Your task to perform on an android device: Open the stopwatch Image 0: 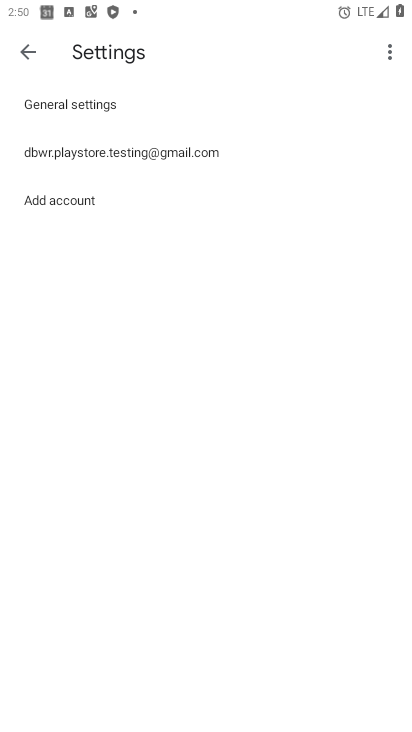
Step 0: press home button
Your task to perform on an android device: Open the stopwatch Image 1: 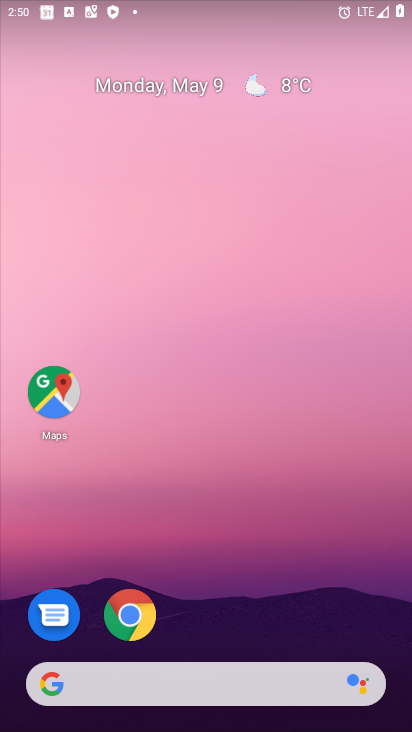
Step 1: drag from (383, 619) to (343, 97)
Your task to perform on an android device: Open the stopwatch Image 2: 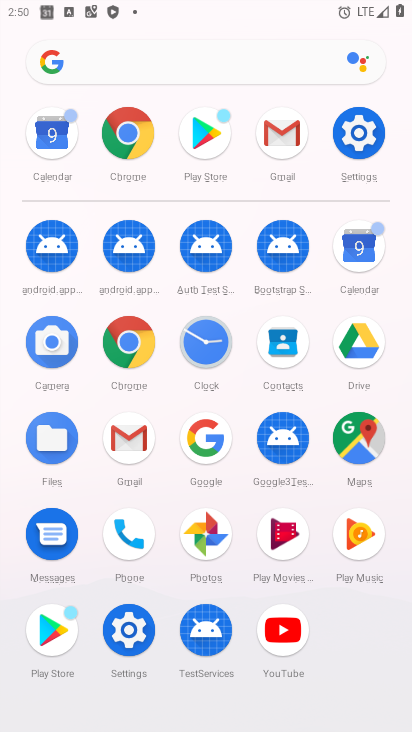
Step 2: click (207, 344)
Your task to perform on an android device: Open the stopwatch Image 3: 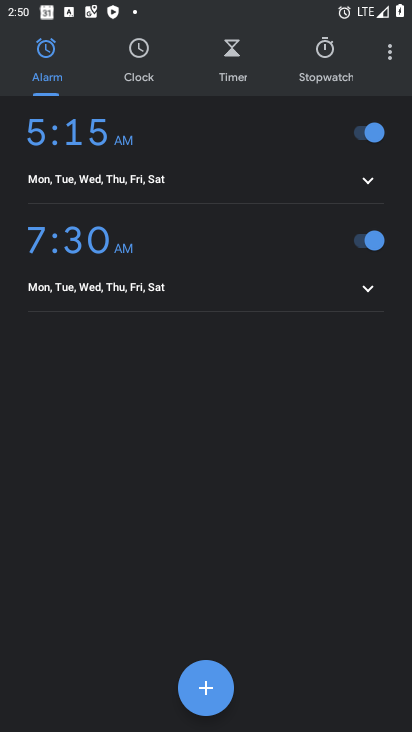
Step 3: click (323, 54)
Your task to perform on an android device: Open the stopwatch Image 4: 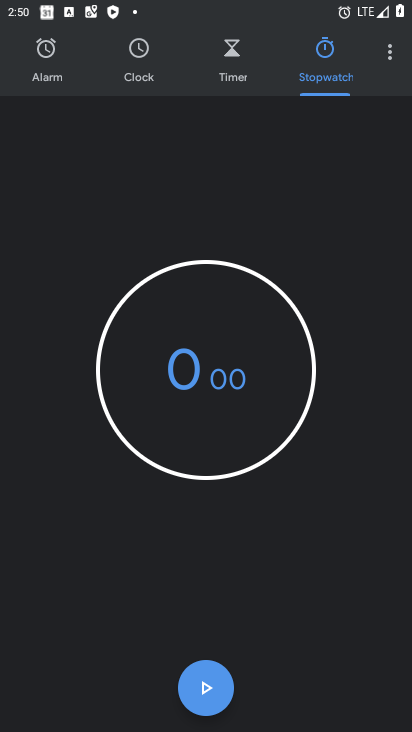
Step 4: task complete